Your task to perform on an android device: refresh tabs in the chrome app Image 0: 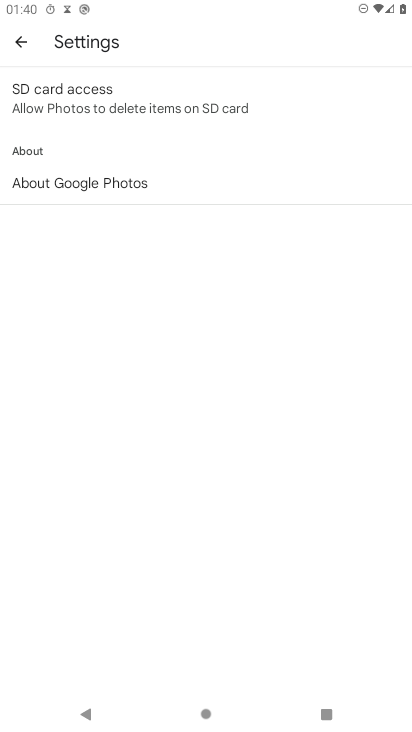
Step 0: press home button
Your task to perform on an android device: refresh tabs in the chrome app Image 1: 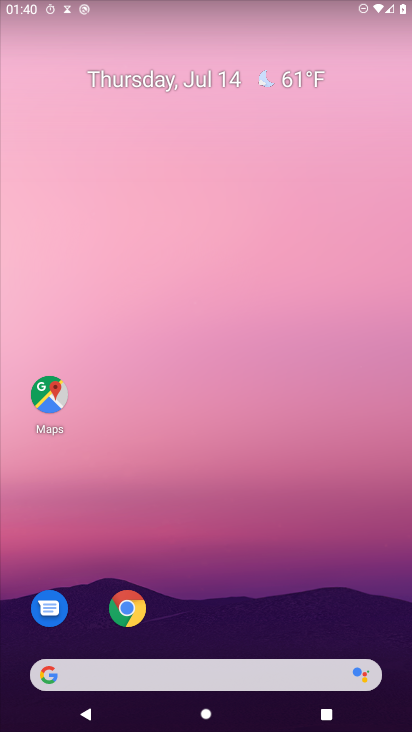
Step 1: click (132, 609)
Your task to perform on an android device: refresh tabs in the chrome app Image 2: 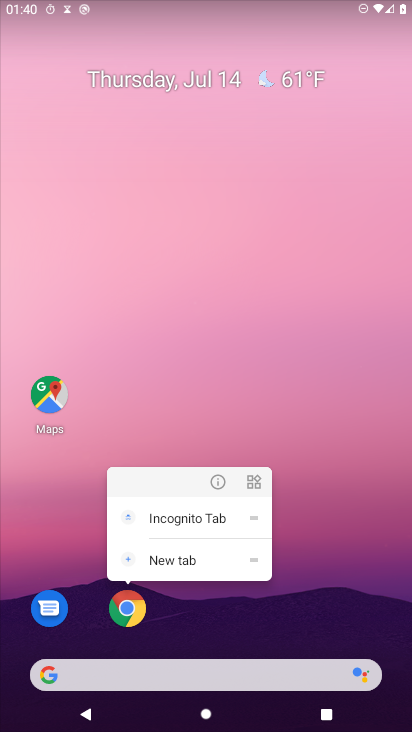
Step 2: click (129, 605)
Your task to perform on an android device: refresh tabs in the chrome app Image 3: 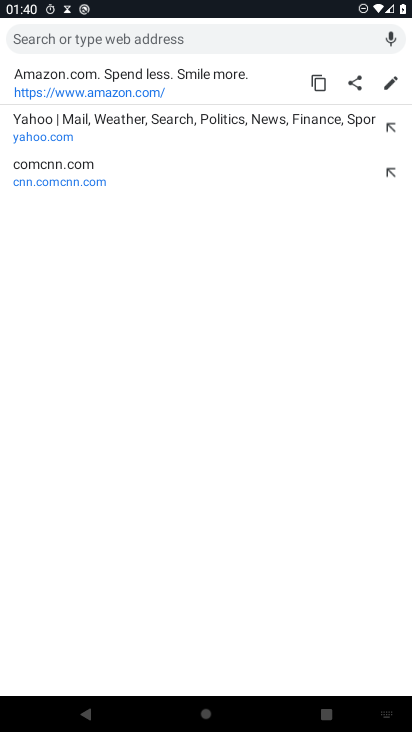
Step 3: press back button
Your task to perform on an android device: refresh tabs in the chrome app Image 4: 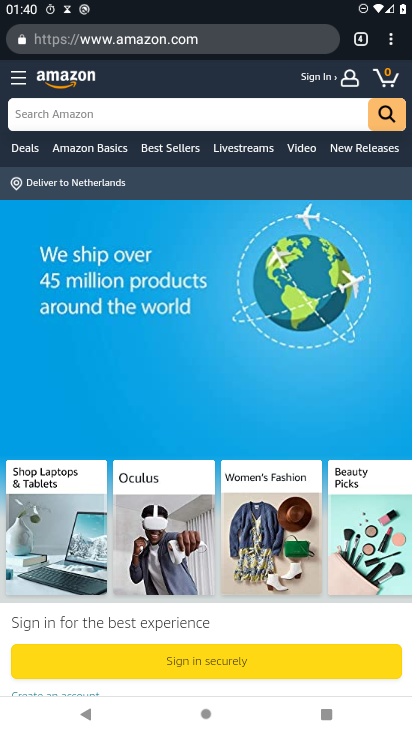
Step 4: click (389, 42)
Your task to perform on an android device: refresh tabs in the chrome app Image 5: 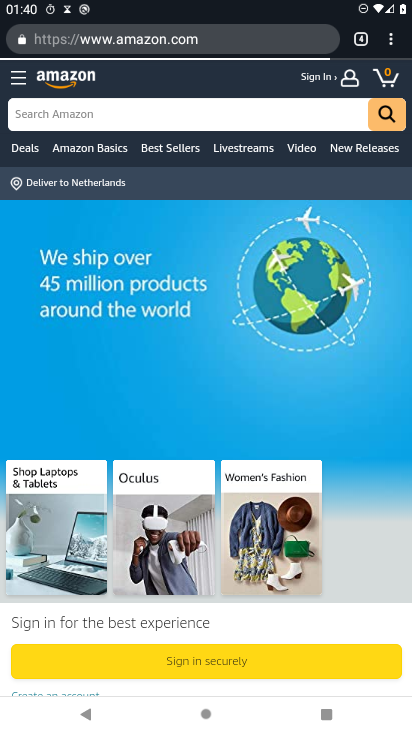
Step 5: click (389, 42)
Your task to perform on an android device: refresh tabs in the chrome app Image 6: 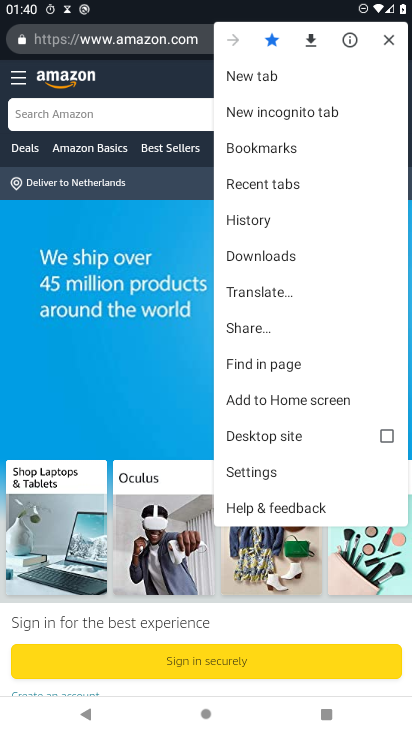
Step 6: click (389, 43)
Your task to perform on an android device: refresh tabs in the chrome app Image 7: 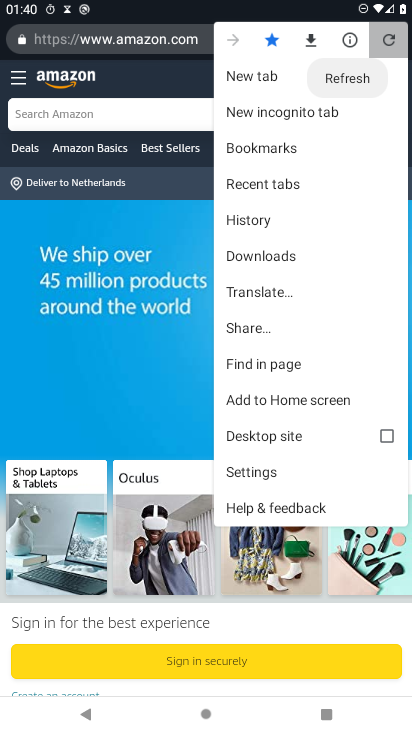
Step 7: click (389, 43)
Your task to perform on an android device: refresh tabs in the chrome app Image 8: 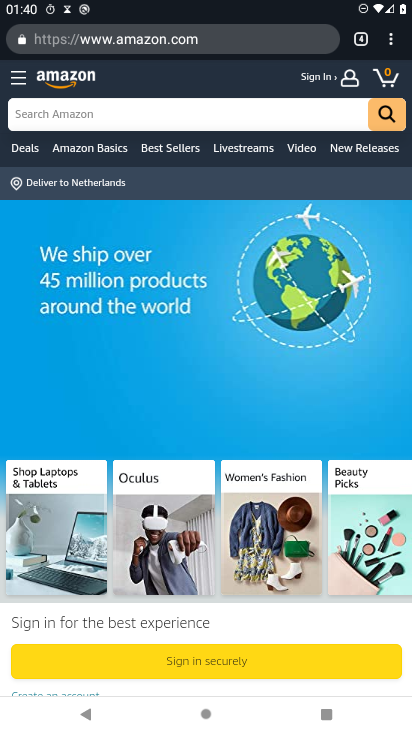
Step 8: task complete